Your task to perform on an android device: allow cookies in the chrome app Image 0: 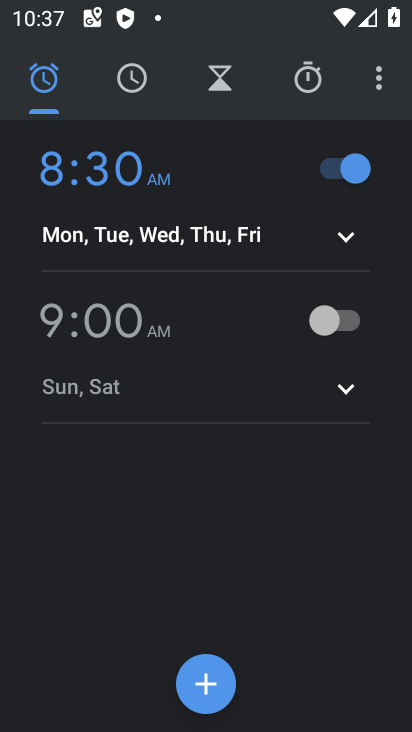
Step 0: press back button
Your task to perform on an android device: allow cookies in the chrome app Image 1: 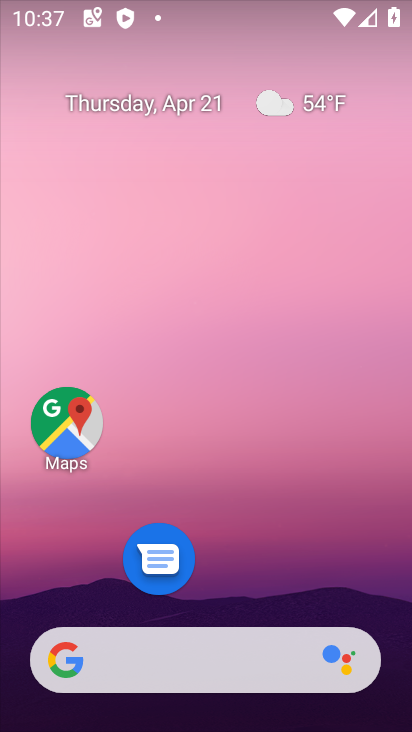
Step 1: drag from (253, 522) to (295, 108)
Your task to perform on an android device: allow cookies in the chrome app Image 2: 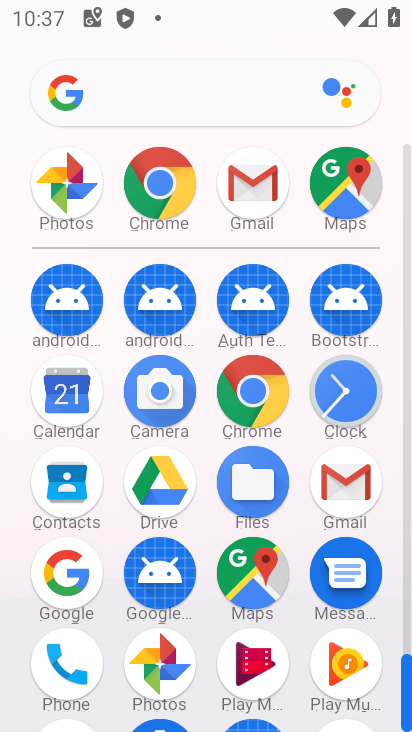
Step 2: click (174, 184)
Your task to perform on an android device: allow cookies in the chrome app Image 3: 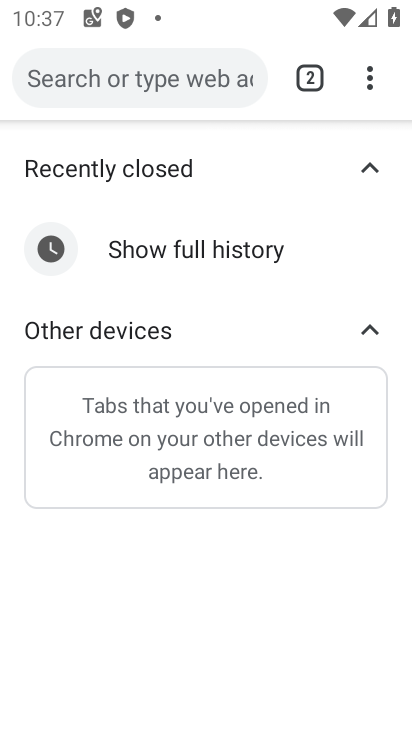
Step 3: click (363, 75)
Your task to perform on an android device: allow cookies in the chrome app Image 4: 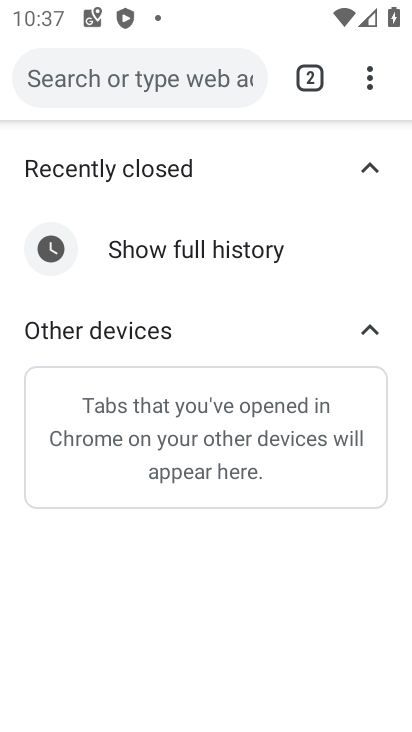
Step 4: drag from (382, 64) to (167, 613)
Your task to perform on an android device: allow cookies in the chrome app Image 5: 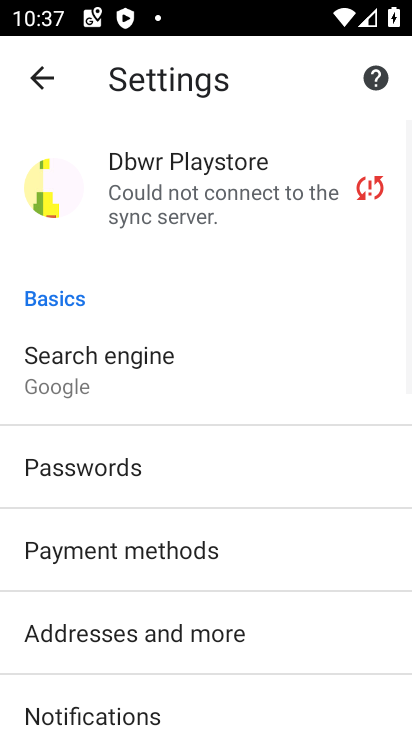
Step 5: drag from (161, 680) to (239, 176)
Your task to perform on an android device: allow cookies in the chrome app Image 6: 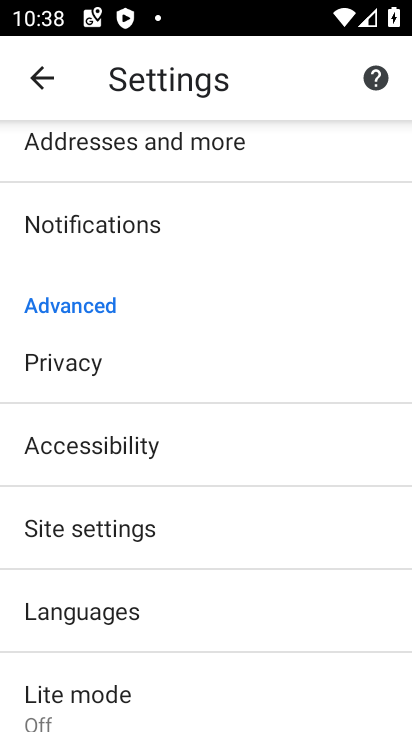
Step 6: click (105, 532)
Your task to perform on an android device: allow cookies in the chrome app Image 7: 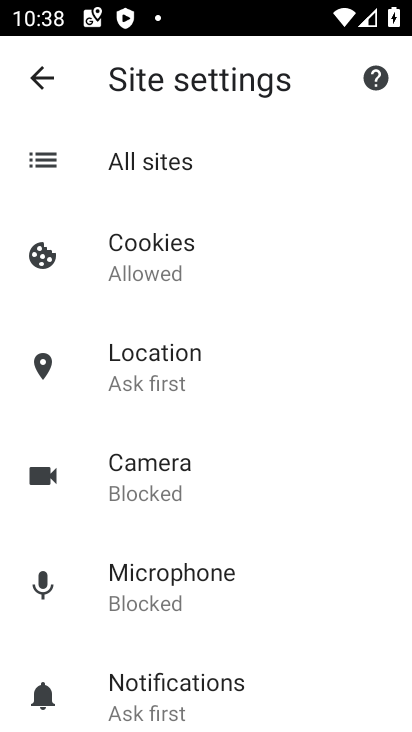
Step 7: click (155, 263)
Your task to perform on an android device: allow cookies in the chrome app Image 8: 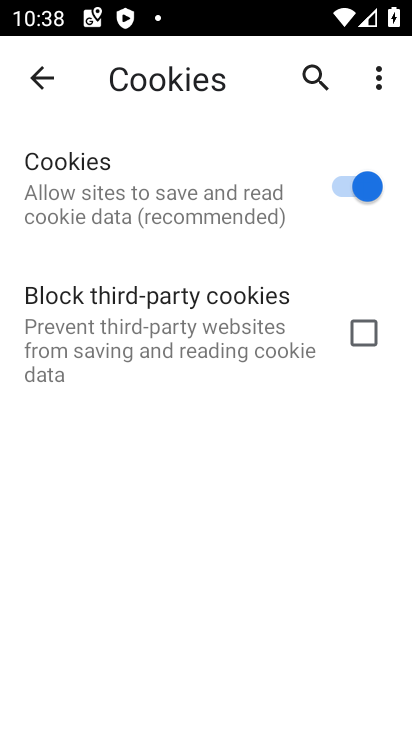
Step 8: task complete